Your task to perform on an android device: Clear the shopping cart on walmart. Add "usb-a" to the cart on walmart Image 0: 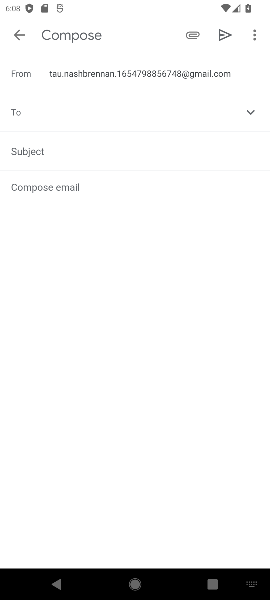
Step 0: press home button
Your task to perform on an android device: Clear the shopping cart on walmart. Add "usb-a" to the cart on walmart Image 1: 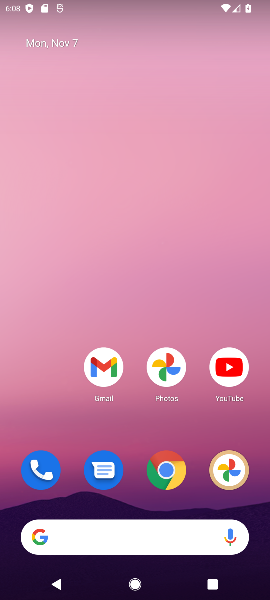
Step 1: click (175, 461)
Your task to perform on an android device: Clear the shopping cart on walmart. Add "usb-a" to the cart on walmart Image 2: 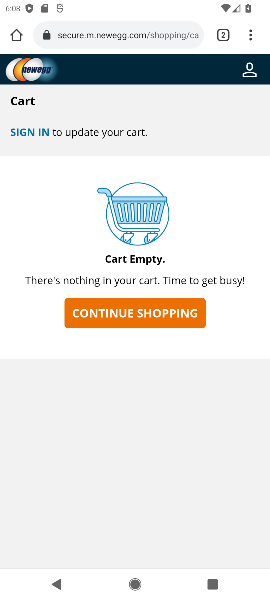
Step 2: click (168, 470)
Your task to perform on an android device: Clear the shopping cart on walmart. Add "usb-a" to the cart on walmart Image 3: 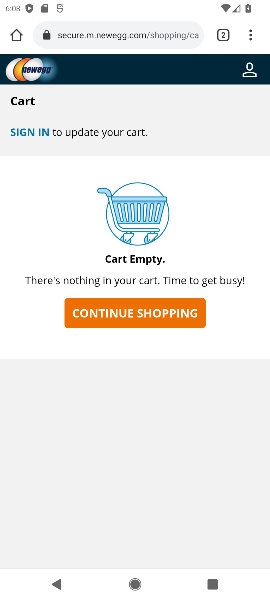
Step 3: click (121, 37)
Your task to perform on an android device: Clear the shopping cart on walmart. Add "usb-a" to the cart on walmart Image 4: 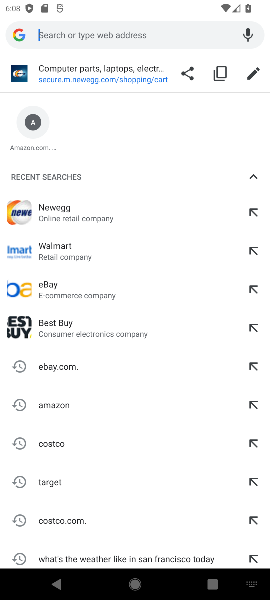
Step 4: click (56, 249)
Your task to perform on an android device: Clear the shopping cart on walmart. Add "usb-a" to the cart on walmart Image 5: 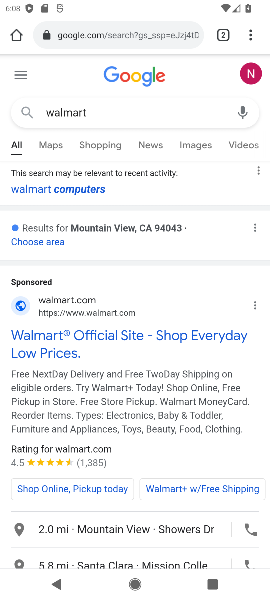
Step 5: click (70, 329)
Your task to perform on an android device: Clear the shopping cart on walmart. Add "usb-a" to the cart on walmart Image 6: 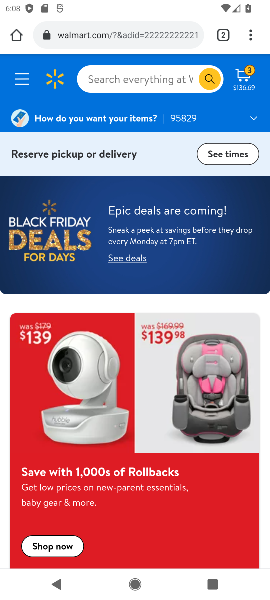
Step 6: click (148, 80)
Your task to perform on an android device: Clear the shopping cart on walmart. Add "usb-a" to the cart on walmart Image 7: 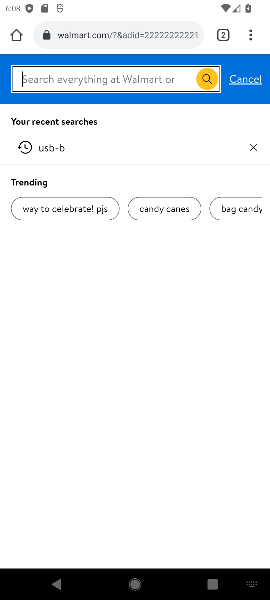
Step 7: type "usb-a"
Your task to perform on an android device: Clear the shopping cart on walmart. Add "usb-a" to the cart on walmart Image 8: 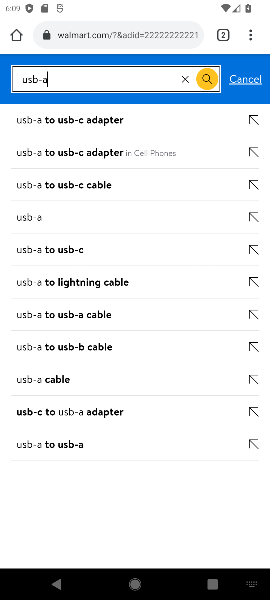
Step 8: click (37, 219)
Your task to perform on an android device: Clear the shopping cart on walmart. Add "usb-a" to the cart on walmart Image 9: 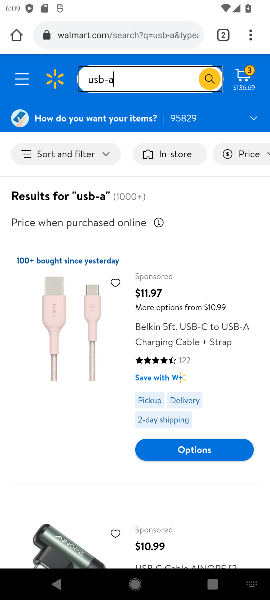
Step 9: click (153, 448)
Your task to perform on an android device: Clear the shopping cart on walmart. Add "usb-a" to the cart on walmart Image 10: 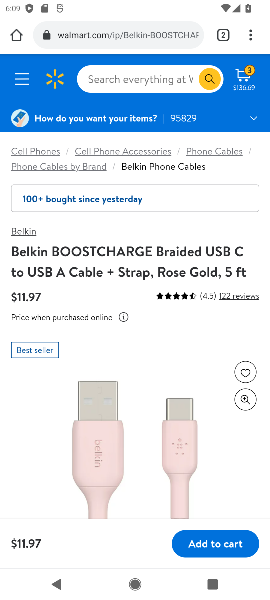
Step 10: click (228, 545)
Your task to perform on an android device: Clear the shopping cart on walmart. Add "usb-a" to the cart on walmart Image 11: 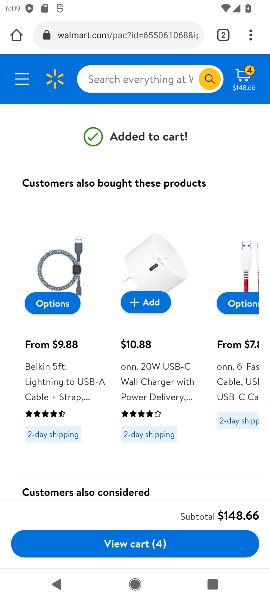
Step 11: task complete